Your task to perform on an android device: Go to Google Image 0: 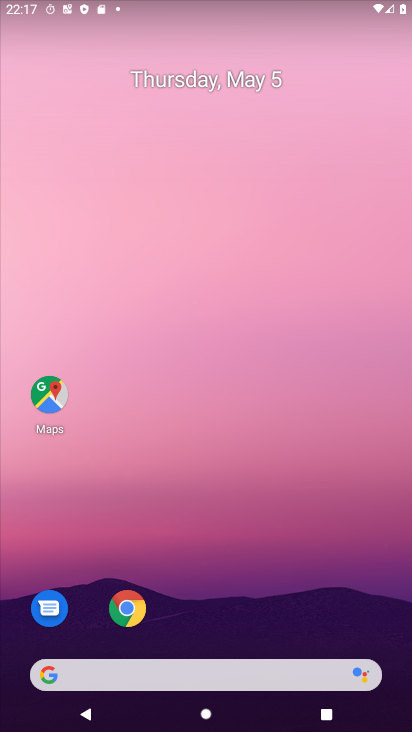
Step 0: drag from (303, 646) to (291, 12)
Your task to perform on an android device: Go to Google Image 1: 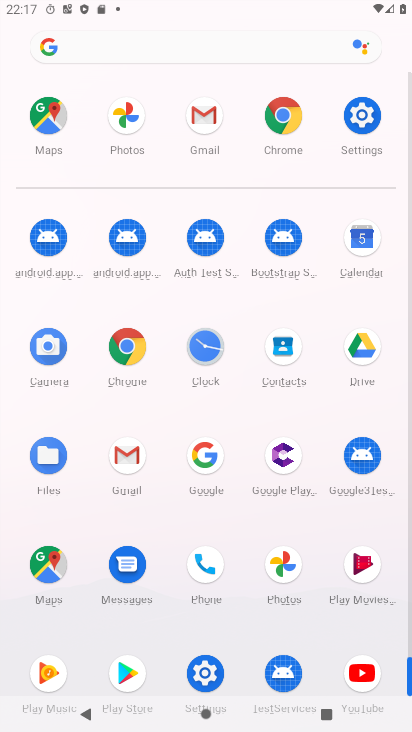
Step 1: click (110, 339)
Your task to perform on an android device: Go to Google Image 2: 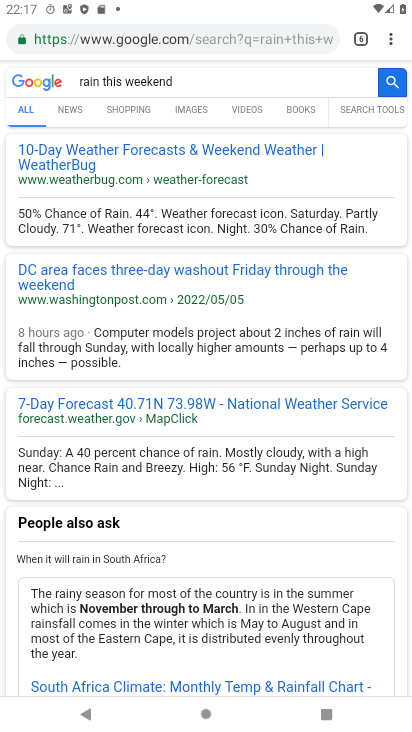
Step 2: click (393, 36)
Your task to perform on an android device: Go to Google Image 3: 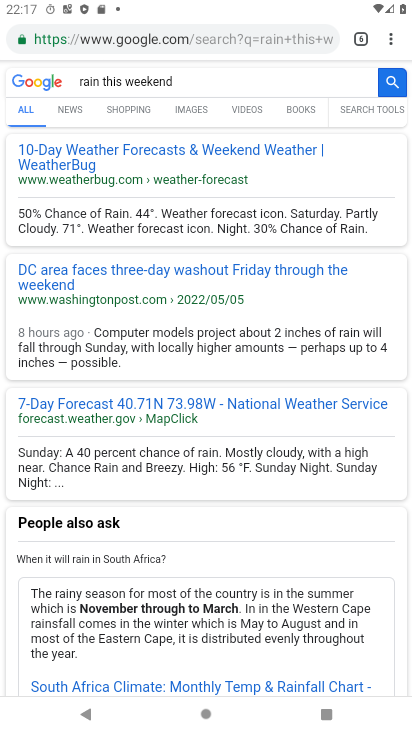
Step 3: task complete